Your task to perform on an android device: toggle javascript in the chrome app Image 0: 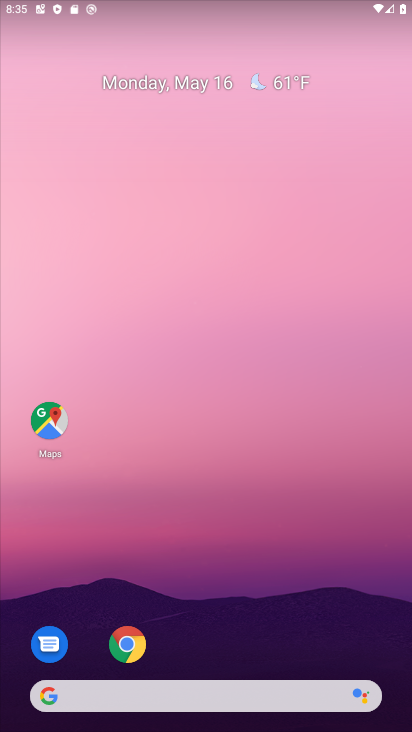
Step 0: click (133, 644)
Your task to perform on an android device: toggle javascript in the chrome app Image 1: 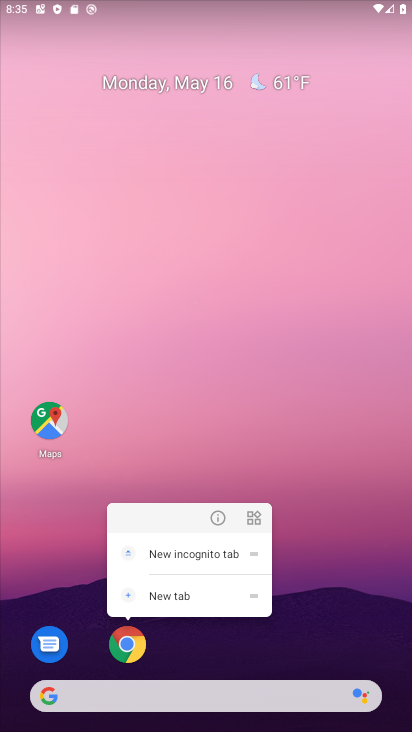
Step 1: click (133, 644)
Your task to perform on an android device: toggle javascript in the chrome app Image 2: 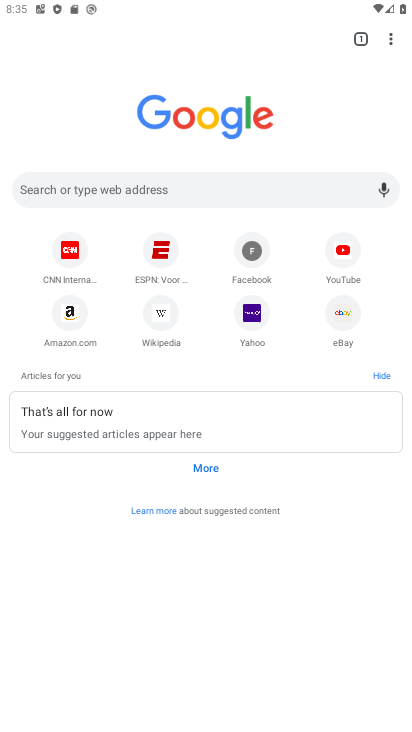
Step 2: click (386, 40)
Your task to perform on an android device: toggle javascript in the chrome app Image 3: 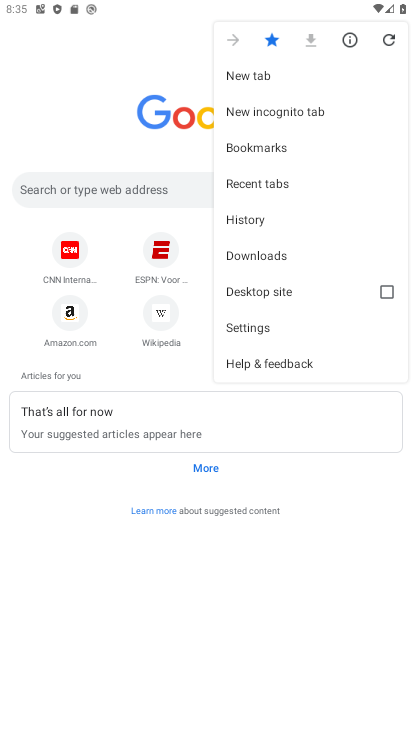
Step 3: click (258, 329)
Your task to perform on an android device: toggle javascript in the chrome app Image 4: 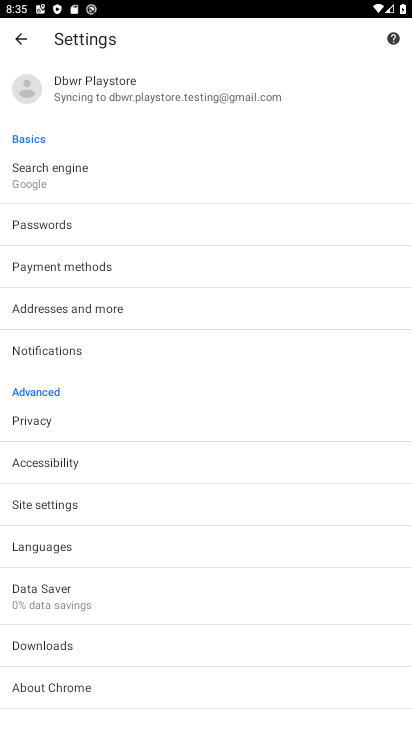
Step 4: click (45, 504)
Your task to perform on an android device: toggle javascript in the chrome app Image 5: 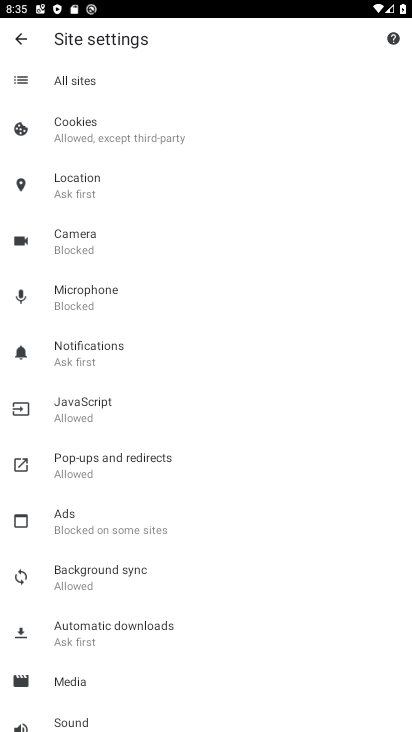
Step 5: click (114, 413)
Your task to perform on an android device: toggle javascript in the chrome app Image 6: 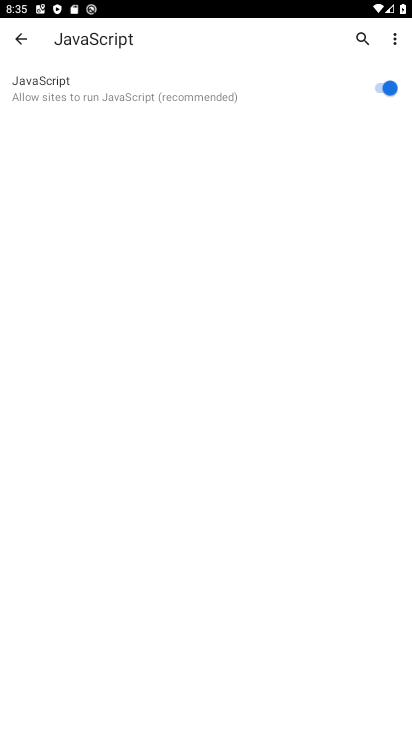
Step 6: click (384, 85)
Your task to perform on an android device: toggle javascript in the chrome app Image 7: 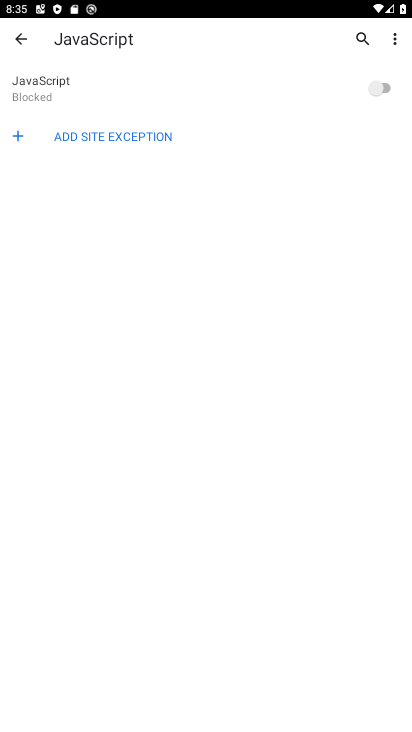
Step 7: task complete